Your task to perform on an android device: Open the phone app and click the voicemail tab. Image 0: 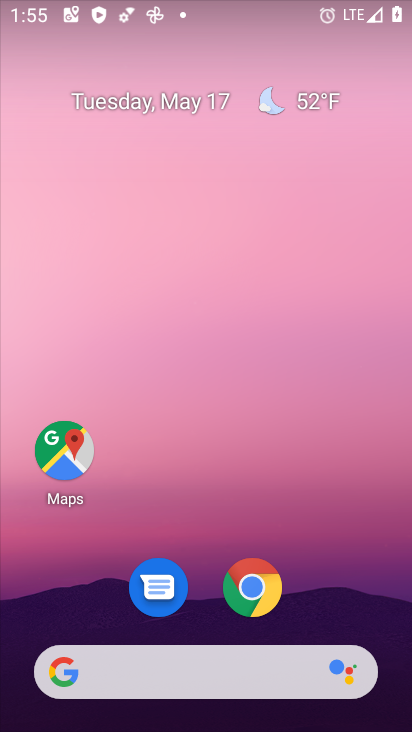
Step 0: drag from (310, 628) to (319, 240)
Your task to perform on an android device: Open the phone app and click the voicemail tab. Image 1: 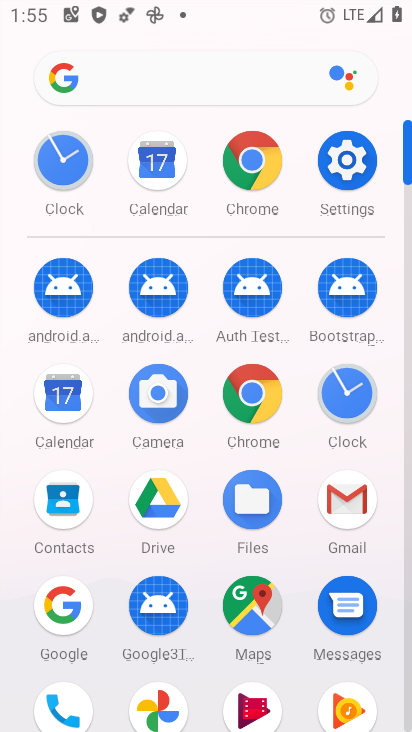
Step 1: click (77, 693)
Your task to perform on an android device: Open the phone app and click the voicemail tab. Image 2: 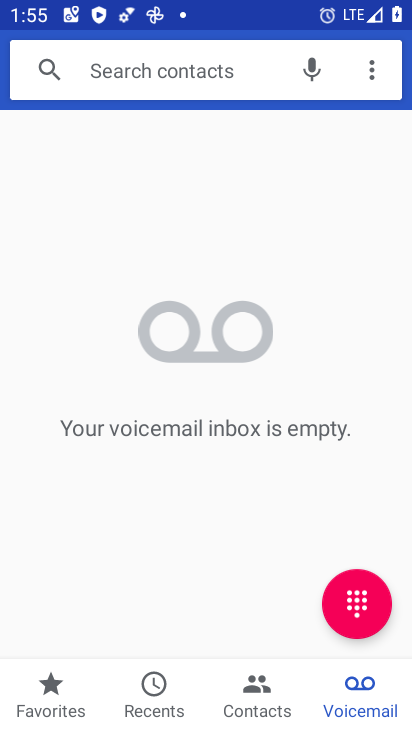
Step 2: task complete